Your task to perform on an android device: Open settings on Google Maps Image 0: 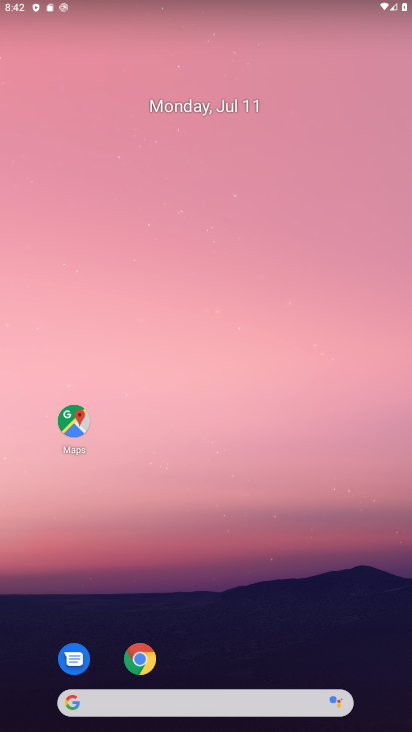
Step 0: drag from (229, 686) to (202, 74)
Your task to perform on an android device: Open settings on Google Maps Image 1: 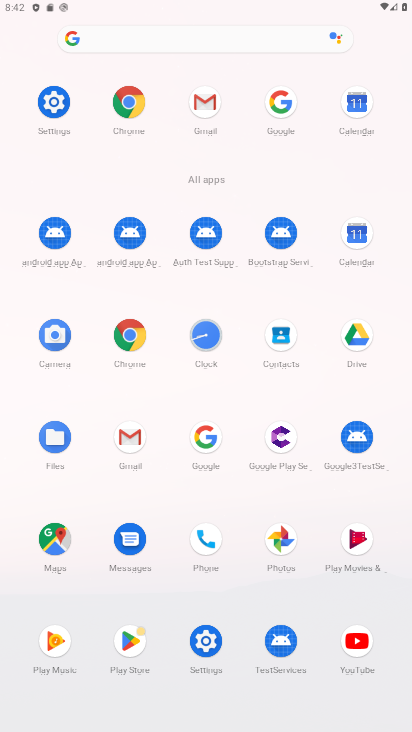
Step 1: click (54, 534)
Your task to perform on an android device: Open settings on Google Maps Image 2: 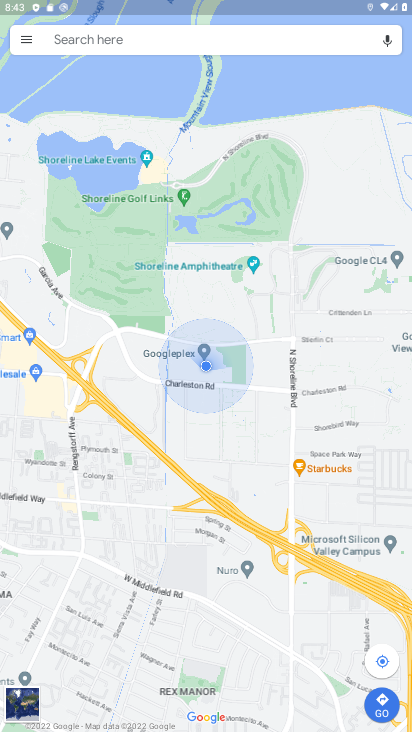
Step 2: click (22, 39)
Your task to perform on an android device: Open settings on Google Maps Image 3: 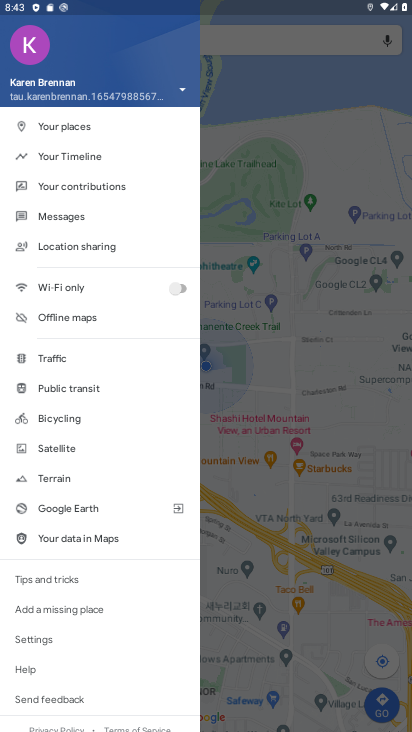
Step 3: click (29, 638)
Your task to perform on an android device: Open settings on Google Maps Image 4: 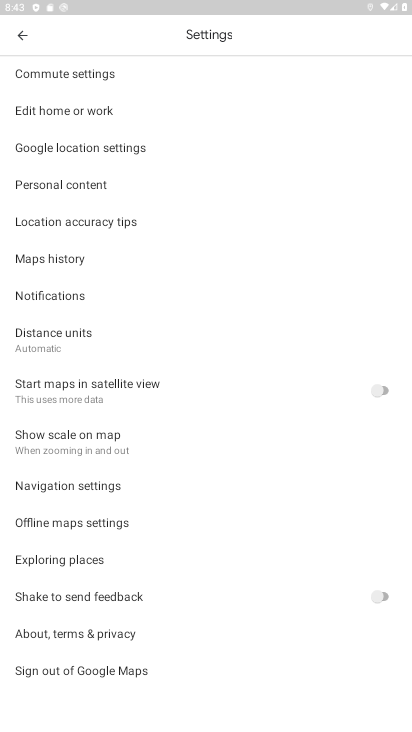
Step 4: task complete